Your task to perform on an android device: turn on the 12-hour format for clock Image 0: 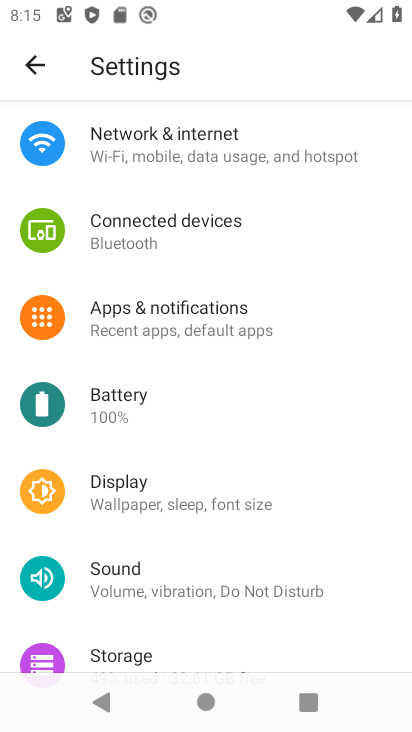
Step 0: press home button
Your task to perform on an android device: turn on the 12-hour format for clock Image 1: 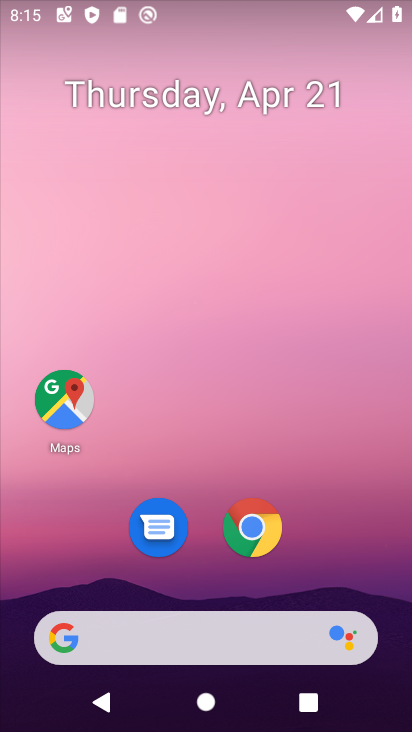
Step 1: drag from (300, 584) to (322, 339)
Your task to perform on an android device: turn on the 12-hour format for clock Image 2: 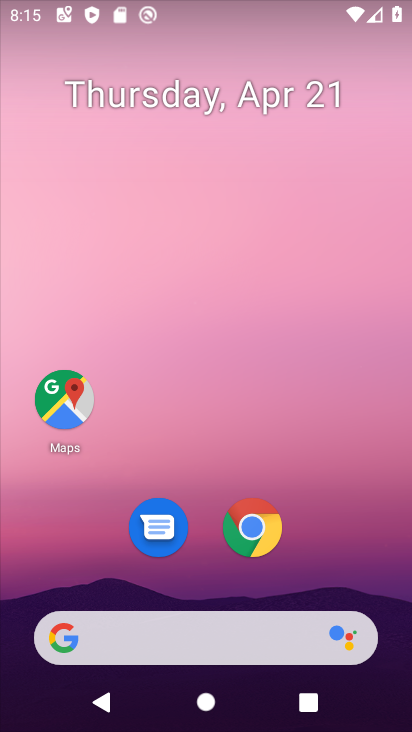
Step 2: drag from (314, 583) to (293, 163)
Your task to perform on an android device: turn on the 12-hour format for clock Image 3: 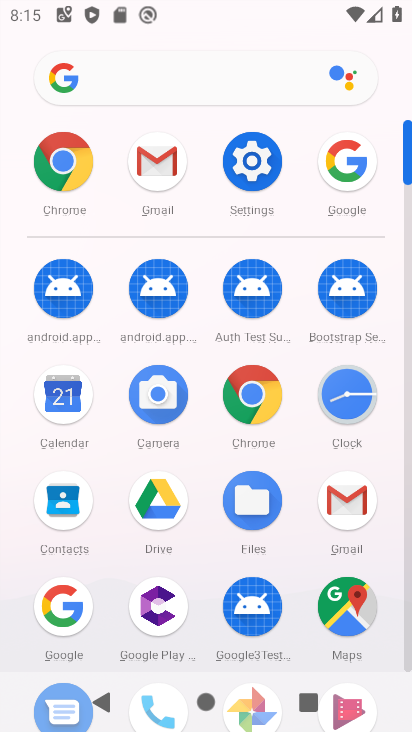
Step 3: click (355, 393)
Your task to perform on an android device: turn on the 12-hour format for clock Image 4: 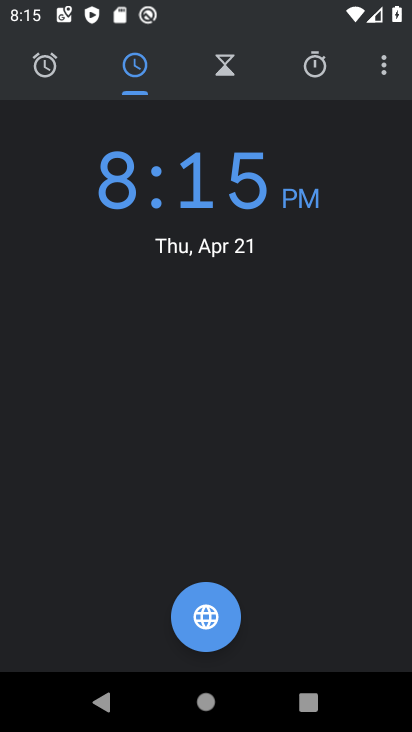
Step 4: click (388, 73)
Your task to perform on an android device: turn on the 12-hour format for clock Image 5: 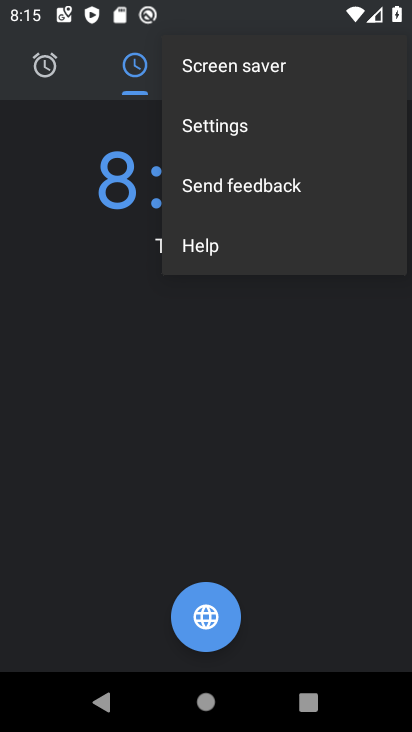
Step 5: click (297, 124)
Your task to perform on an android device: turn on the 12-hour format for clock Image 6: 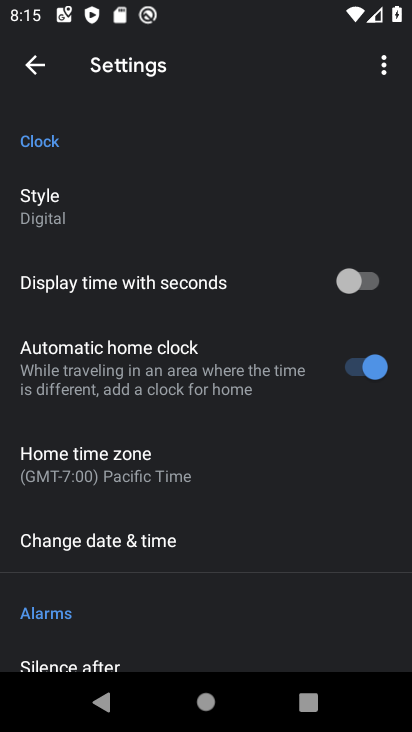
Step 6: click (226, 554)
Your task to perform on an android device: turn on the 12-hour format for clock Image 7: 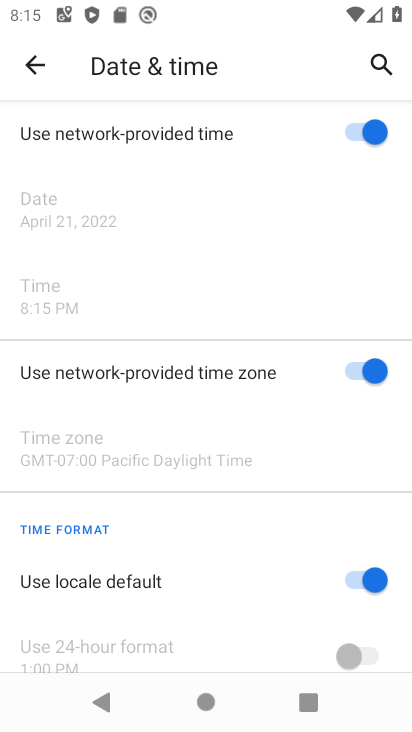
Step 7: task complete